Your task to perform on an android device: Go to notification settings Image 0: 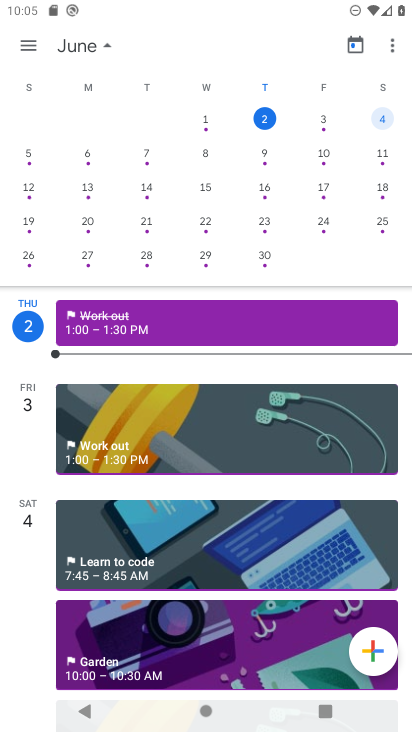
Step 0: press home button
Your task to perform on an android device: Go to notification settings Image 1: 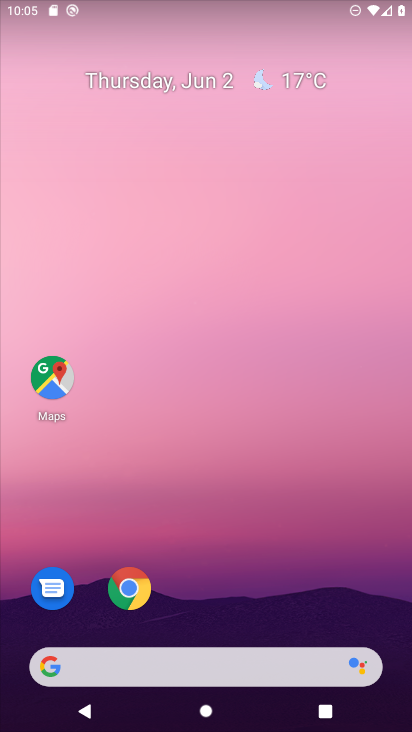
Step 1: drag from (215, 665) to (213, 244)
Your task to perform on an android device: Go to notification settings Image 2: 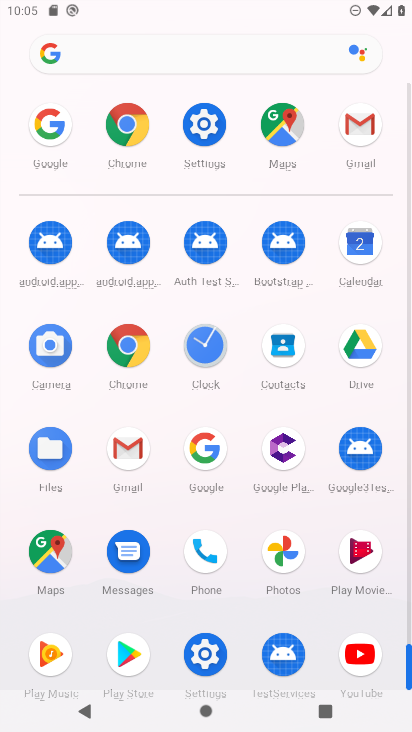
Step 2: click (214, 152)
Your task to perform on an android device: Go to notification settings Image 3: 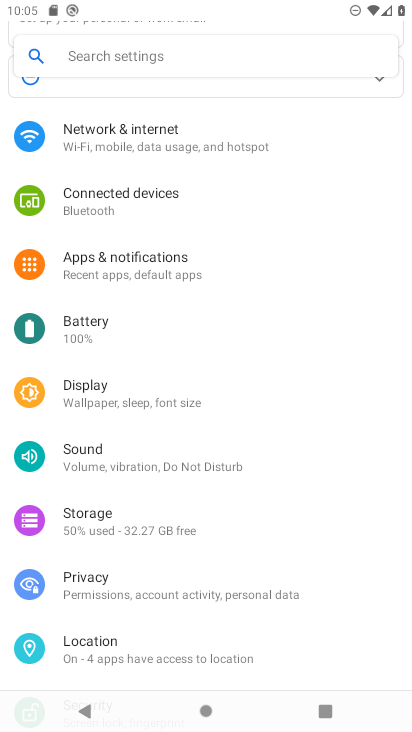
Step 3: click (162, 270)
Your task to perform on an android device: Go to notification settings Image 4: 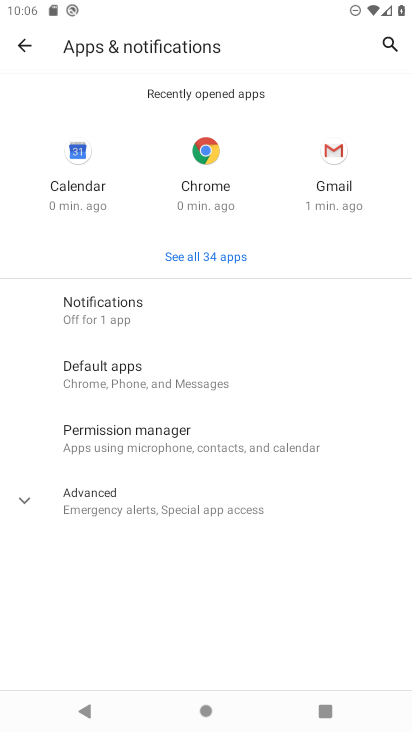
Step 4: click (140, 319)
Your task to perform on an android device: Go to notification settings Image 5: 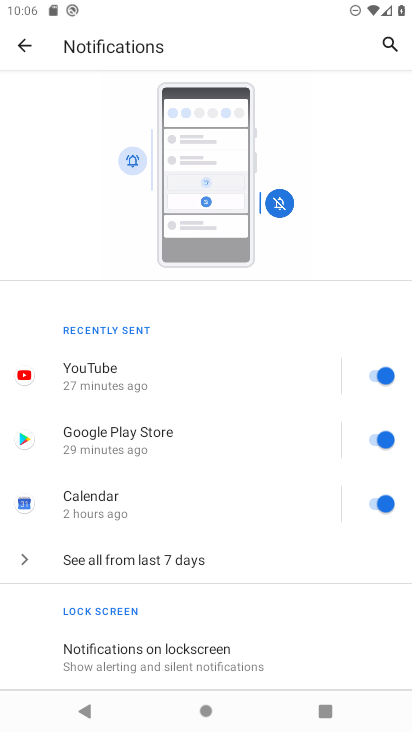
Step 5: click (197, 652)
Your task to perform on an android device: Go to notification settings Image 6: 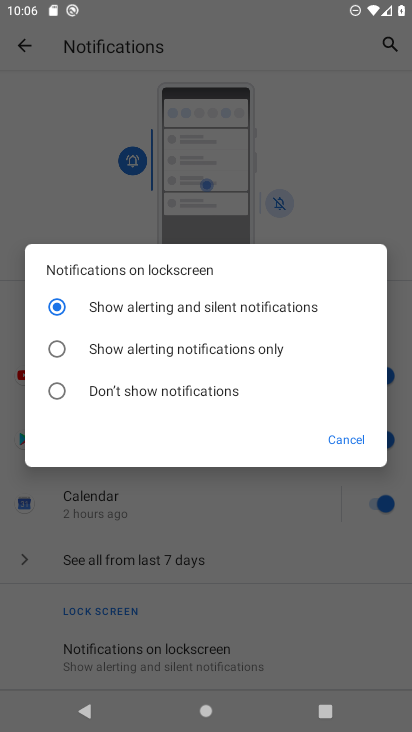
Step 6: task complete